Your task to perform on an android device: star an email in the gmail app Image 0: 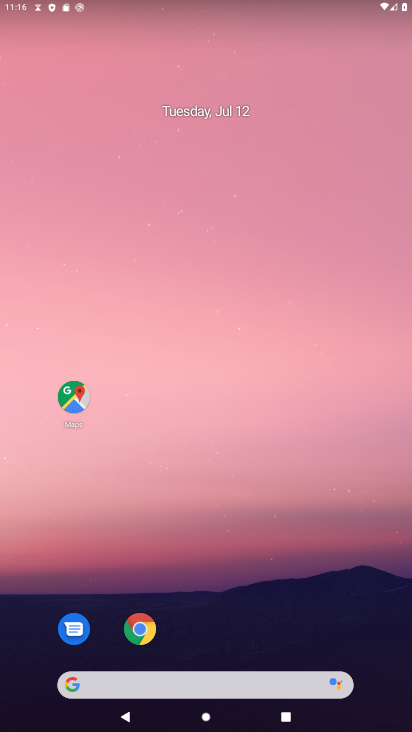
Step 0: drag from (358, 553) to (411, 110)
Your task to perform on an android device: star an email in the gmail app Image 1: 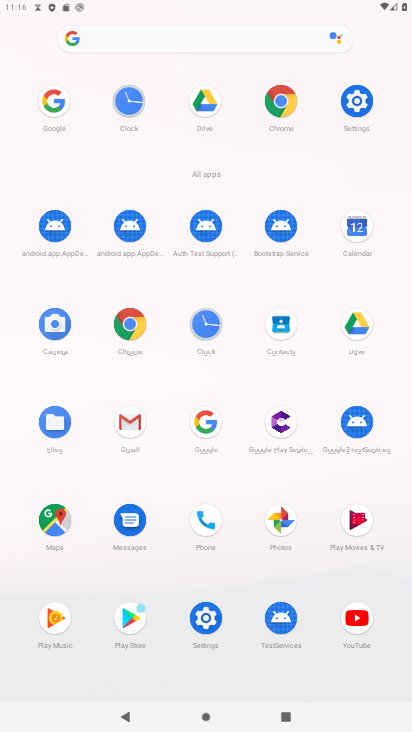
Step 1: click (142, 423)
Your task to perform on an android device: star an email in the gmail app Image 2: 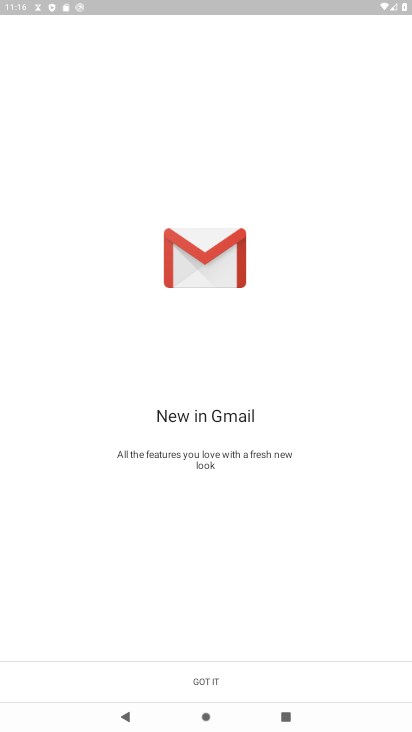
Step 2: click (215, 682)
Your task to perform on an android device: star an email in the gmail app Image 3: 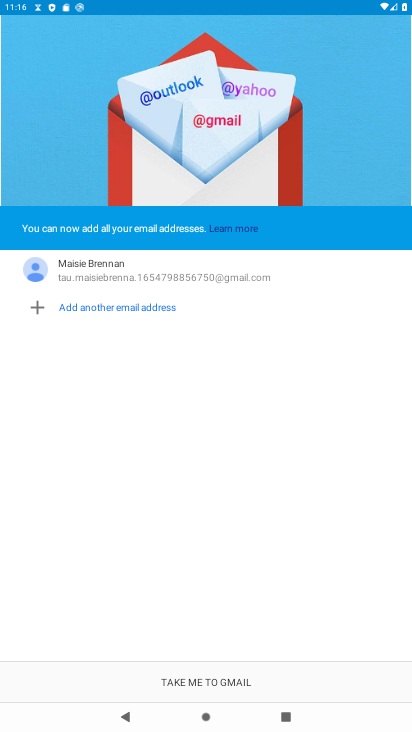
Step 3: click (214, 681)
Your task to perform on an android device: star an email in the gmail app Image 4: 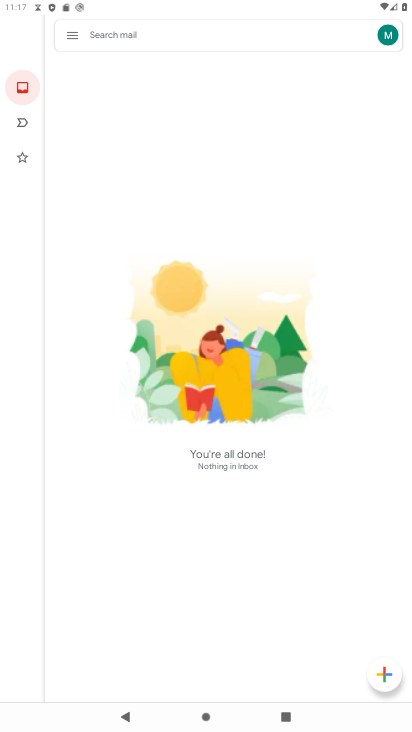
Step 4: task complete